Your task to perform on an android device: turn on data saver in the chrome app Image 0: 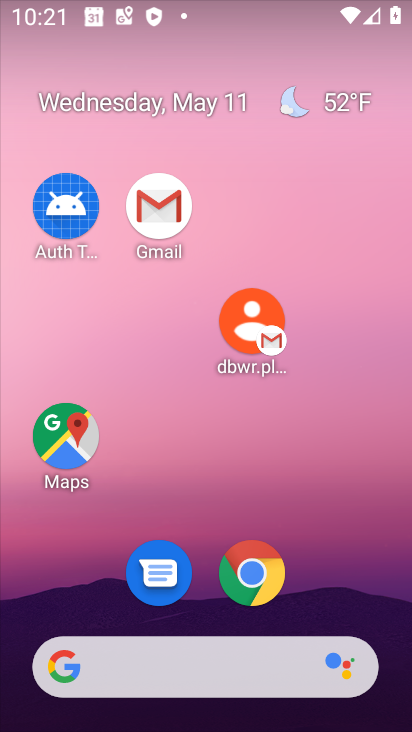
Step 0: drag from (393, 600) to (220, 230)
Your task to perform on an android device: turn on data saver in the chrome app Image 1: 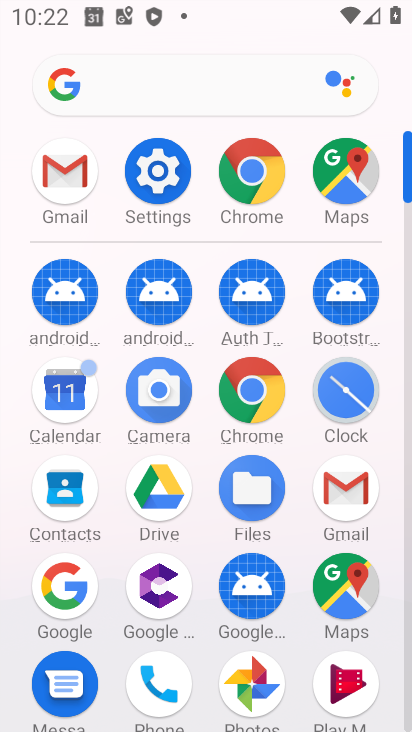
Step 1: click (249, 173)
Your task to perform on an android device: turn on data saver in the chrome app Image 2: 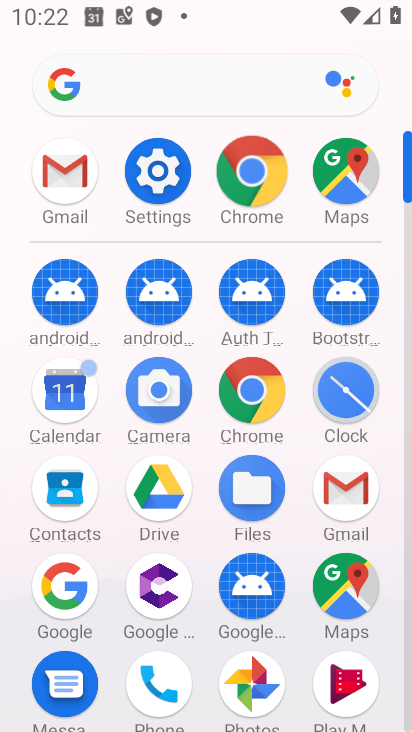
Step 2: click (250, 173)
Your task to perform on an android device: turn on data saver in the chrome app Image 3: 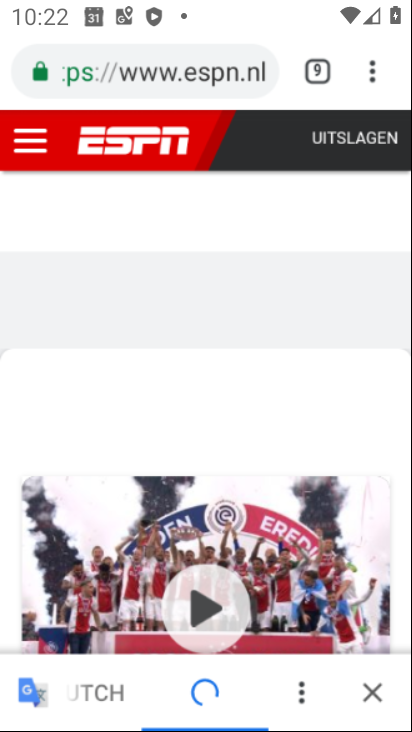
Step 3: click (250, 168)
Your task to perform on an android device: turn on data saver in the chrome app Image 4: 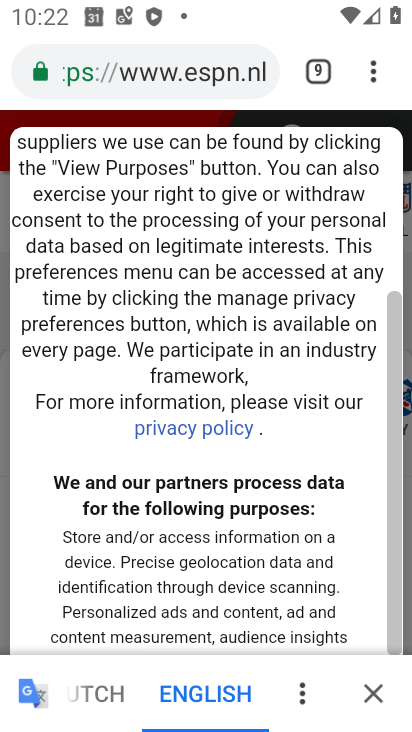
Step 4: drag from (373, 74) to (124, 559)
Your task to perform on an android device: turn on data saver in the chrome app Image 5: 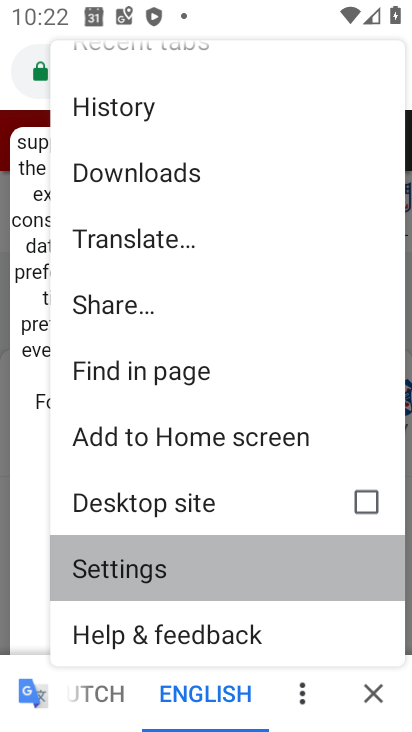
Step 5: click (118, 563)
Your task to perform on an android device: turn on data saver in the chrome app Image 6: 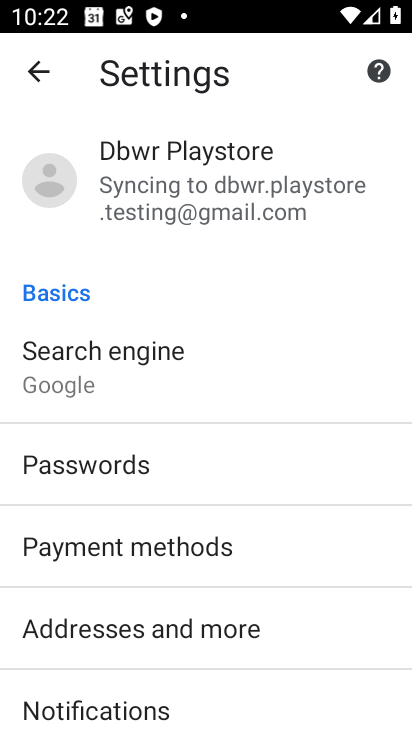
Step 6: drag from (172, 555) to (175, 213)
Your task to perform on an android device: turn on data saver in the chrome app Image 7: 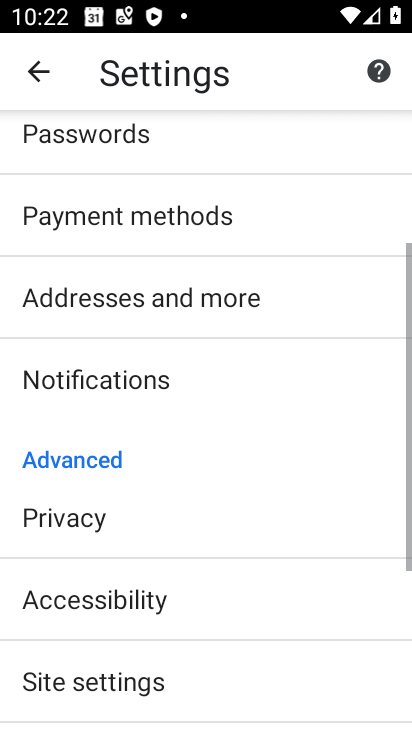
Step 7: drag from (182, 399) to (184, 5)
Your task to perform on an android device: turn on data saver in the chrome app Image 8: 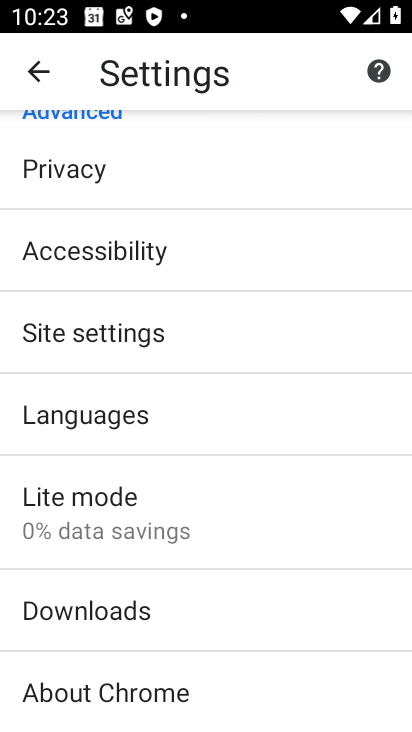
Step 8: click (80, 501)
Your task to perform on an android device: turn on data saver in the chrome app Image 9: 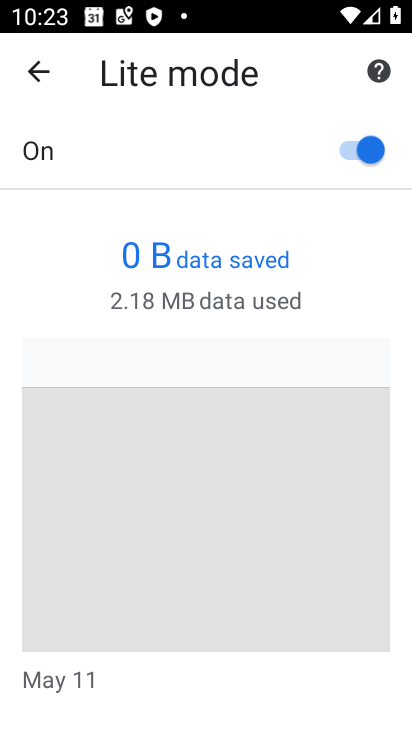
Step 9: press home button
Your task to perform on an android device: turn on data saver in the chrome app Image 10: 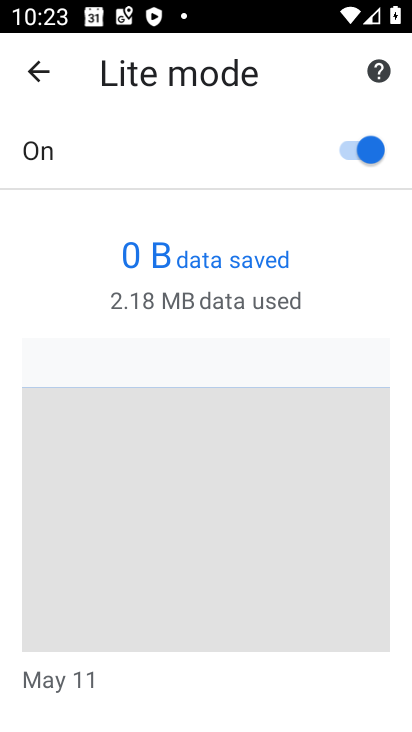
Step 10: press home button
Your task to perform on an android device: turn on data saver in the chrome app Image 11: 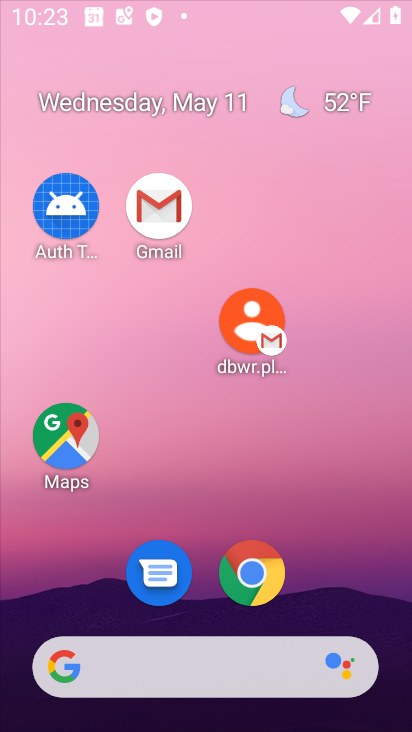
Step 11: press home button
Your task to perform on an android device: turn on data saver in the chrome app Image 12: 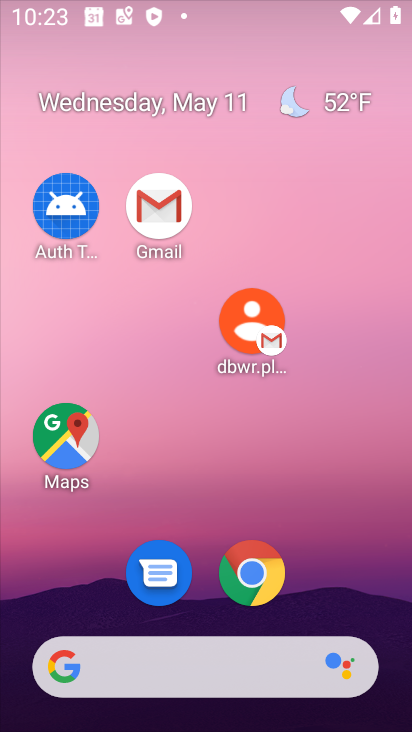
Step 12: press home button
Your task to perform on an android device: turn on data saver in the chrome app Image 13: 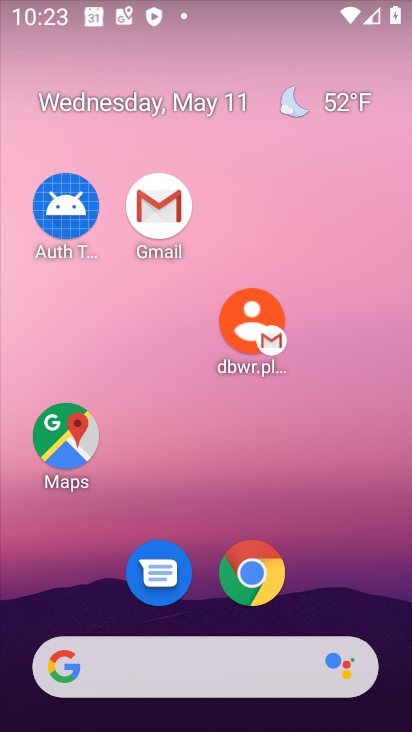
Step 13: drag from (293, 525) to (409, 632)
Your task to perform on an android device: turn on data saver in the chrome app Image 14: 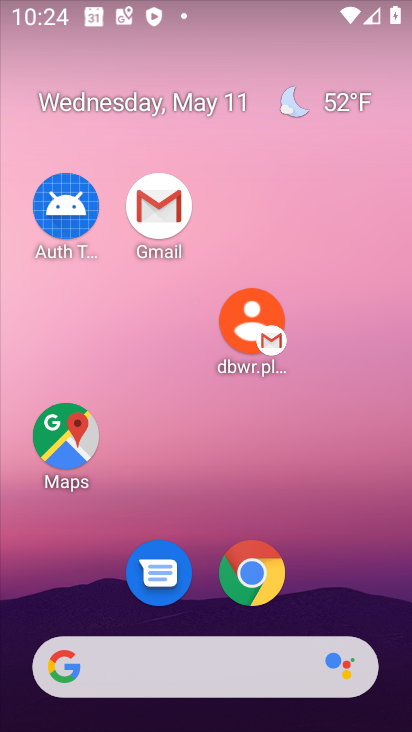
Step 14: drag from (340, 572) to (181, 66)
Your task to perform on an android device: turn on data saver in the chrome app Image 15: 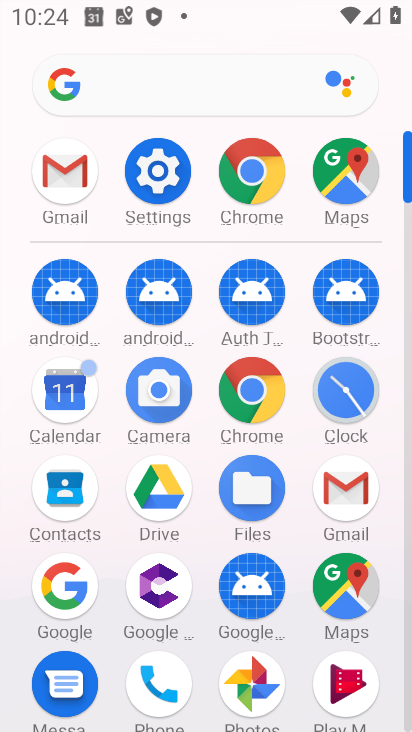
Step 15: click (232, 173)
Your task to perform on an android device: turn on data saver in the chrome app Image 16: 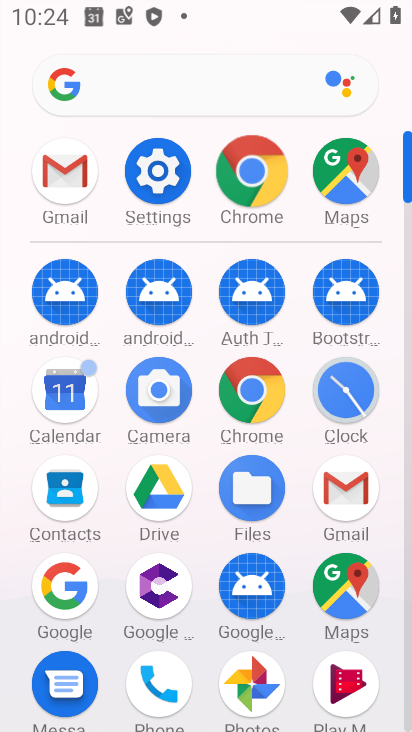
Step 16: click (233, 172)
Your task to perform on an android device: turn on data saver in the chrome app Image 17: 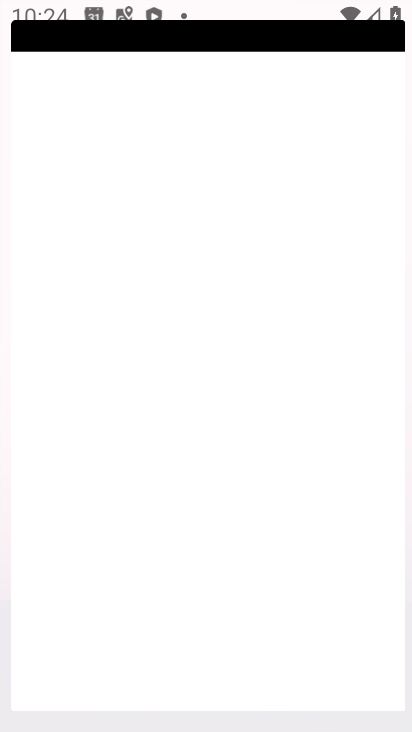
Step 17: click (233, 172)
Your task to perform on an android device: turn on data saver in the chrome app Image 18: 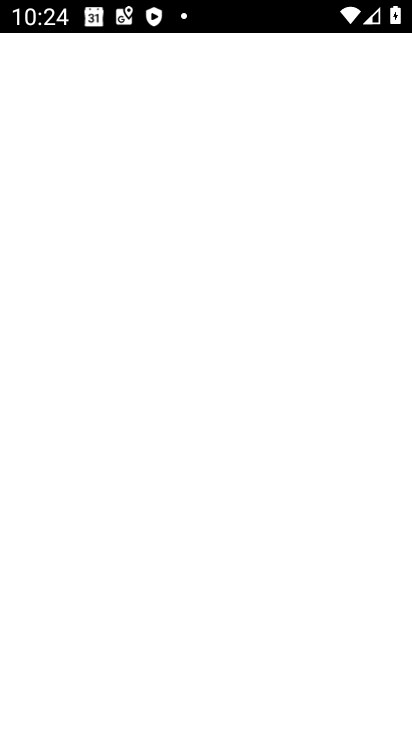
Step 18: click (234, 172)
Your task to perform on an android device: turn on data saver in the chrome app Image 19: 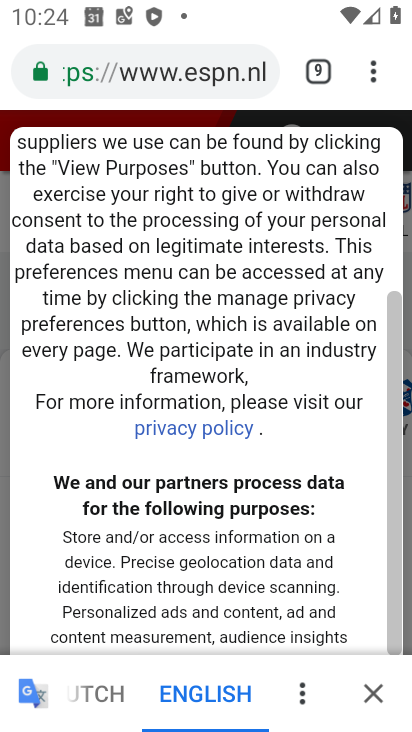
Step 19: click (375, 71)
Your task to perform on an android device: turn on data saver in the chrome app Image 20: 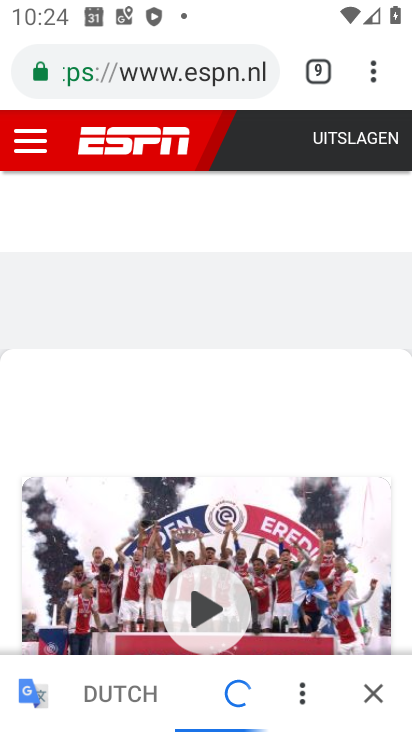
Step 20: drag from (370, 74) to (113, 566)
Your task to perform on an android device: turn on data saver in the chrome app Image 21: 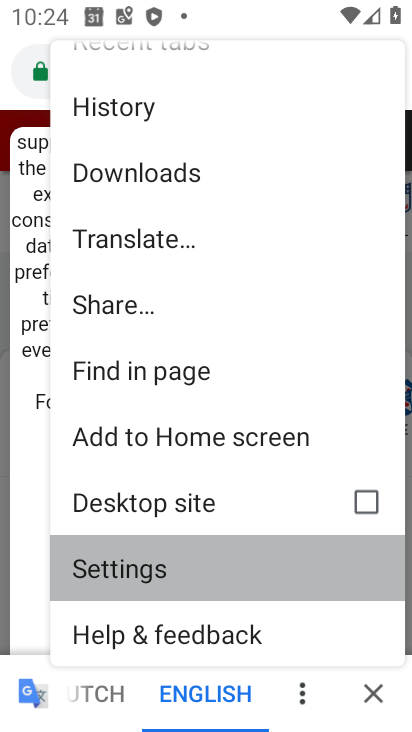
Step 21: click (118, 564)
Your task to perform on an android device: turn on data saver in the chrome app Image 22: 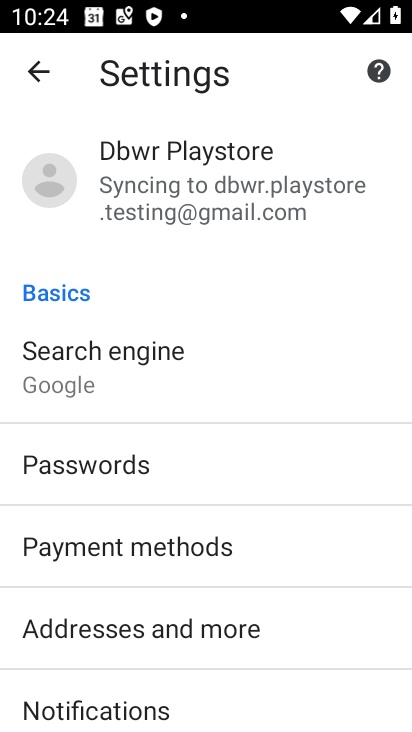
Step 22: drag from (141, 531) to (114, 149)
Your task to perform on an android device: turn on data saver in the chrome app Image 23: 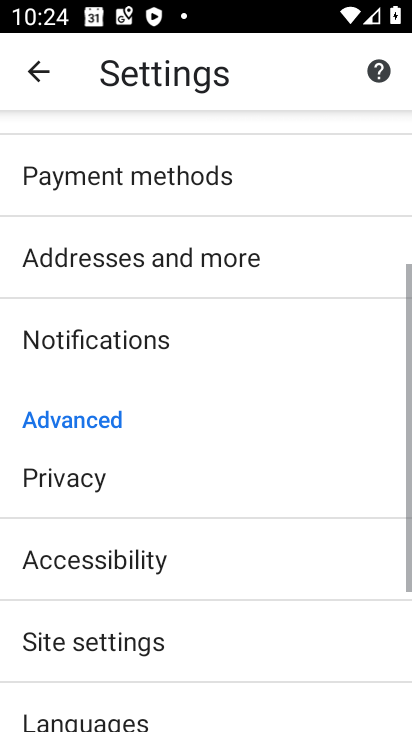
Step 23: drag from (178, 442) to (133, 124)
Your task to perform on an android device: turn on data saver in the chrome app Image 24: 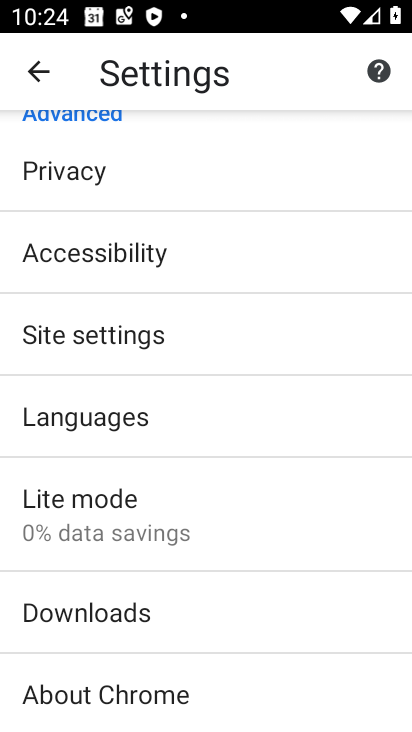
Step 24: click (65, 328)
Your task to perform on an android device: turn on data saver in the chrome app Image 25: 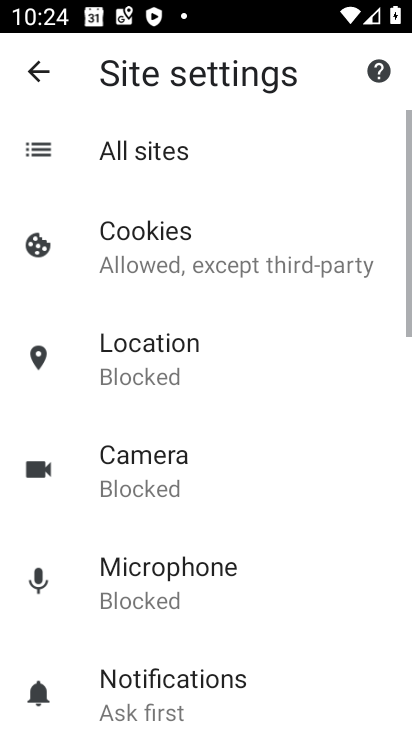
Step 25: click (32, 75)
Your task to perform on an android device: turn on data saver in the chrome app Image 26: 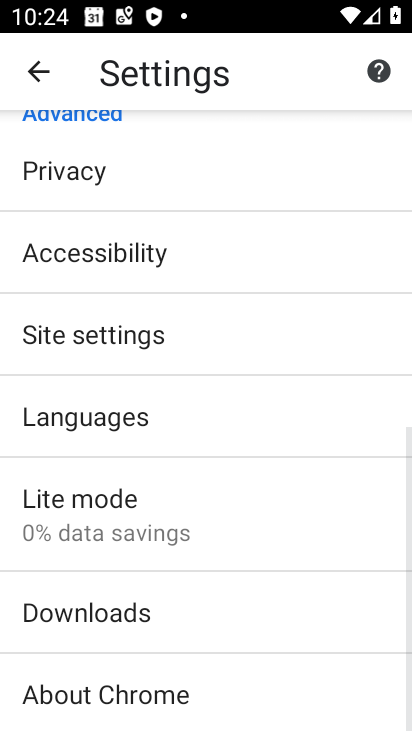
Step 26: click (81, 508)
Your task to perform on an android device: turn on data saver in the chrome app Image 27: 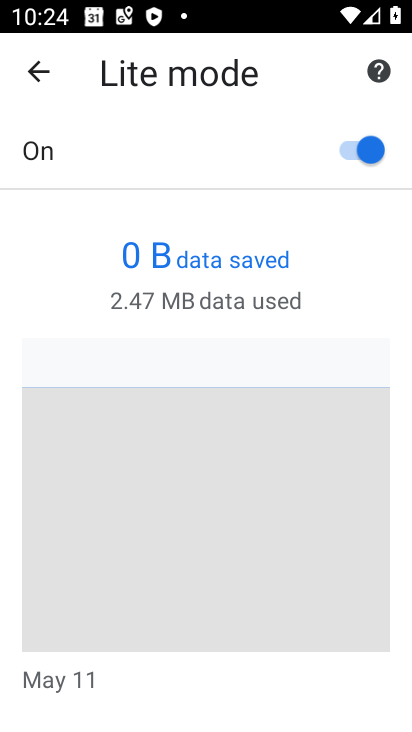
Step 27: task complete